Your task to perform on an android device: check out phone information Image 0: 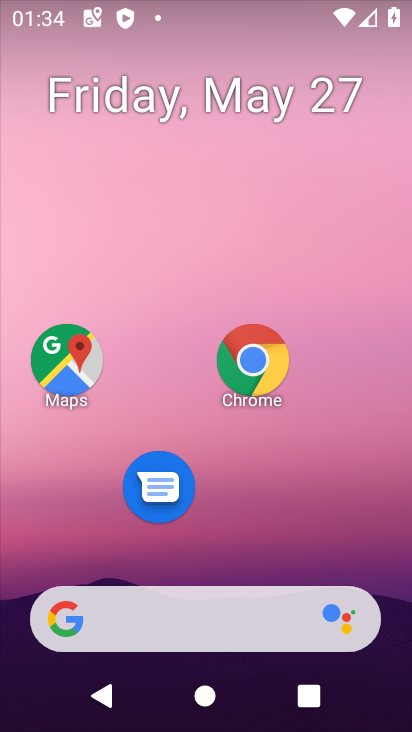
Step 0: drag from (285, 502) to (300, 45)
Your task to perform on an android device: check out phone information Image 1: 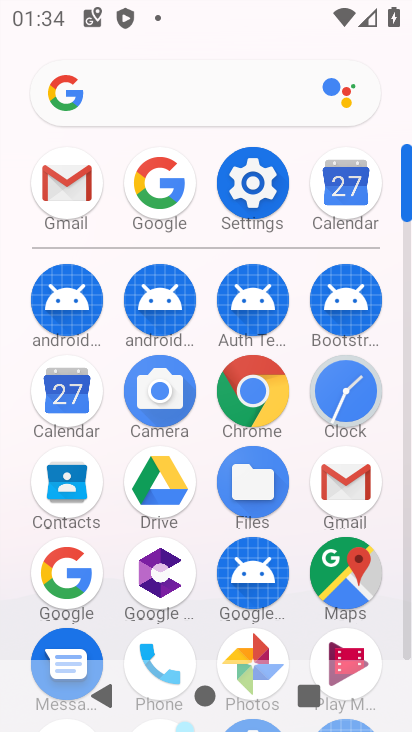
Step 1: click (265, 175)
Your task to perform on an android device: check out phone information Image 2: 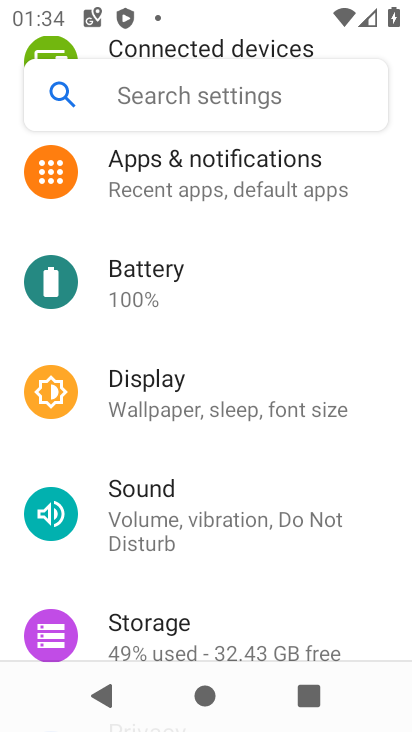
Step 2: drag from (276, 590) to (280, 83)
Your task to perform on an android device: check out phone information Image 3: 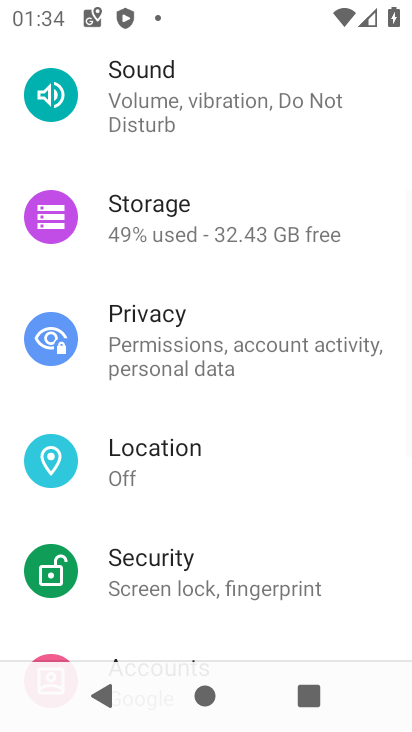
Step 3: drag from (290, 571) to (295, 4)
Your task to perform on an android device: check out phone information Image 4: 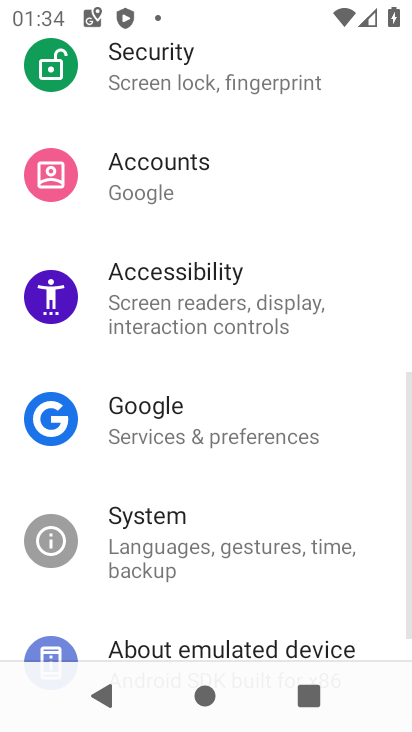
Step 4: drag from (251, 593) to (254, 208)
Your task to perform on an android device: check out phone information Image 5: 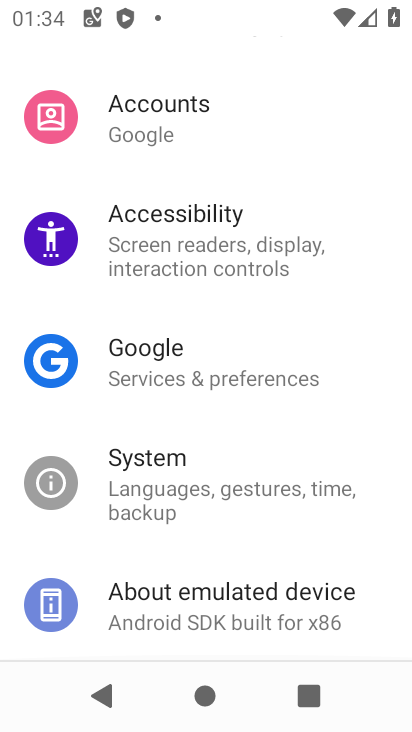
Step 5: click (236, 594)
Your task to perform on an android device: check out phone information Image 6: 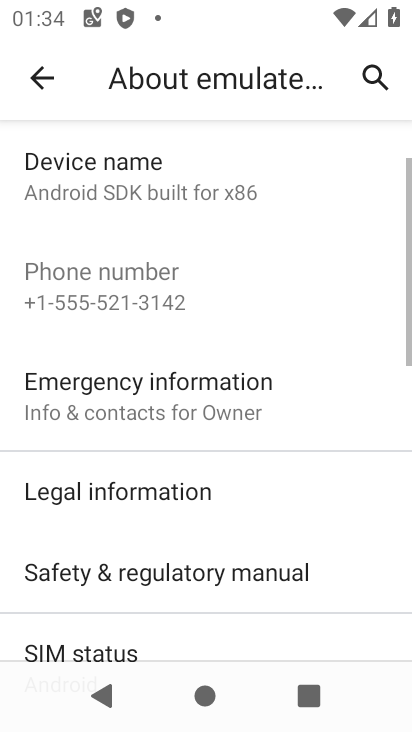
Step 6: task complete